Your task to perform on an android device: Go to Amazon Image 0: 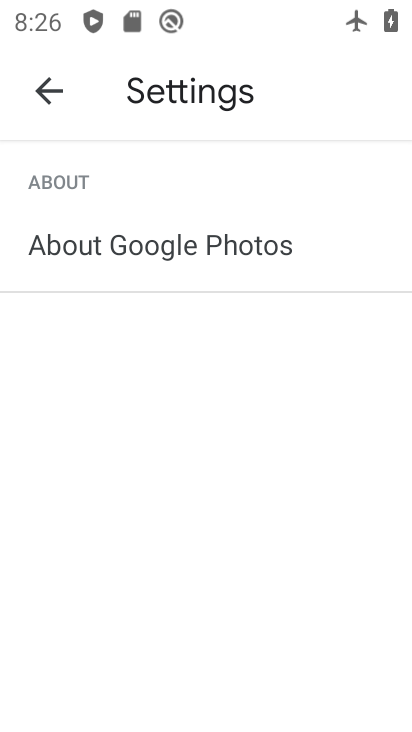
Step 0: press home button
Your task to perform on an android device: Go to Amazon Image 1: 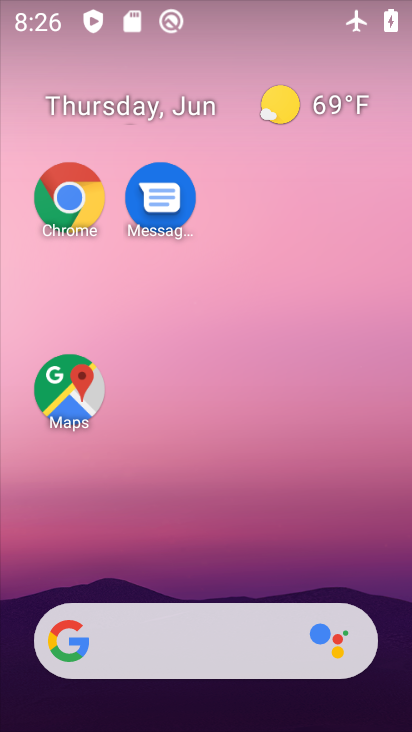
Step 1: drag from (214, 616) to (388, 29)
Your task to perform on an android device: Go to Amazon Image 2: 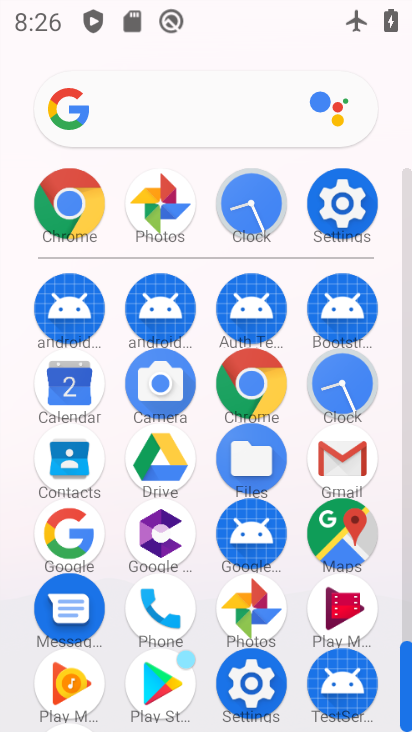
Step 2: click (259, 371)
Your task to perform on an android device: Go to Amazon Image 3: 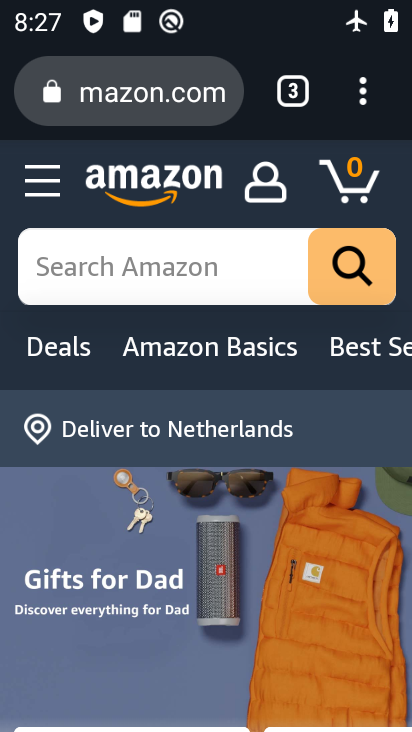
Step 3: task complete